Your task to perform on an android device: read, delete, or share a saved page in the chrome app Image 0: 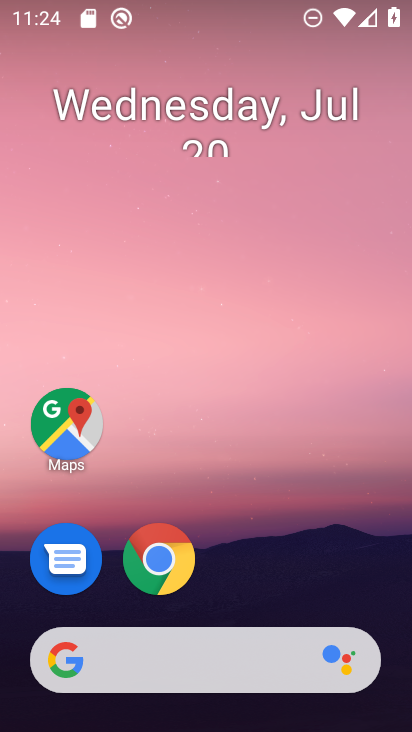
Step 0: drag from (216, 571) to (268, 78)
Your task to perform on an android device: read, delete, or share a saved page in the chrome app Image 1: 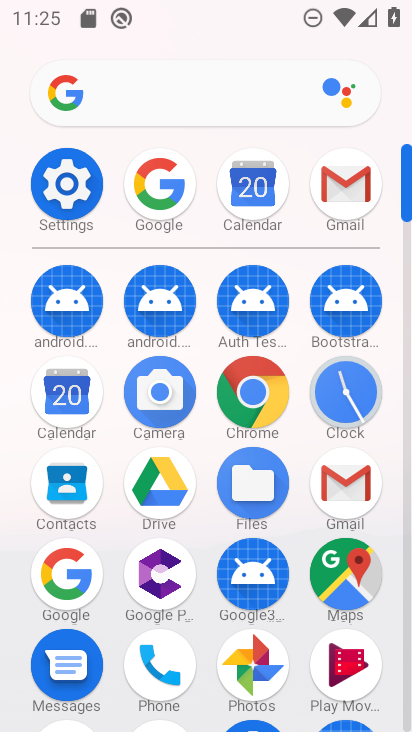
Step 1: click (243, 391)
Your task to perform on an android device: read, delete, or share a saved page in the chrome app Image 2: 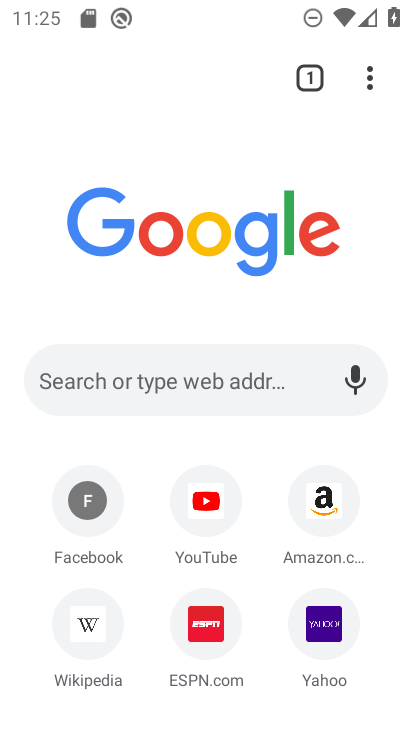
Step 2: click (367, 78)
Your task to perform on an android device: read, delete, or share a saved page in the chrome app Image 3: 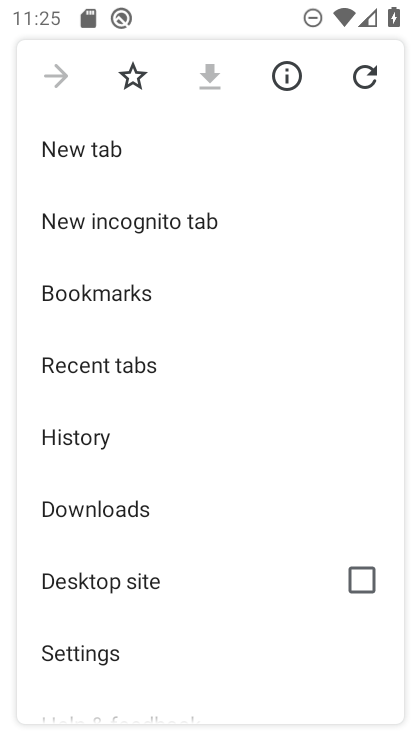
Step 3: click (87, 516)
Your task to perform on an android device: read, delete, or share a saved page in the chrome app Image 4: 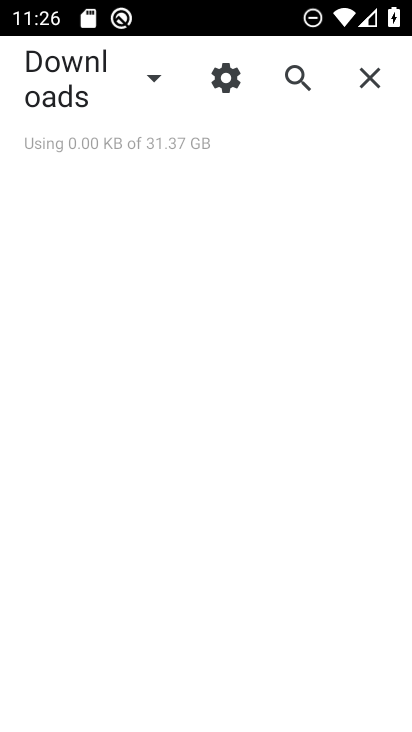
Step 4: click (150, 80)
Your task to perform on an android device: read, delete, or share a saved page in the chrome app Image 5: 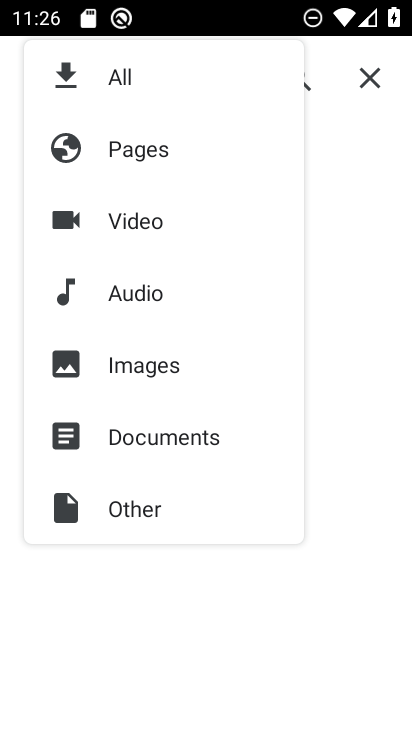
Step 5: click (149, 157)
Your task to perform on an android device: read, delete, or share a saved page in the chrome app Image 6: 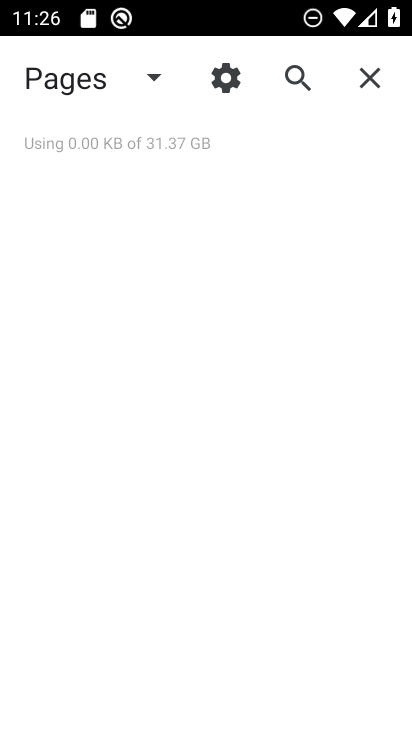
Step 6: task complete